Your task to perform on an android device: turn off translation in the chrome app Image 0: 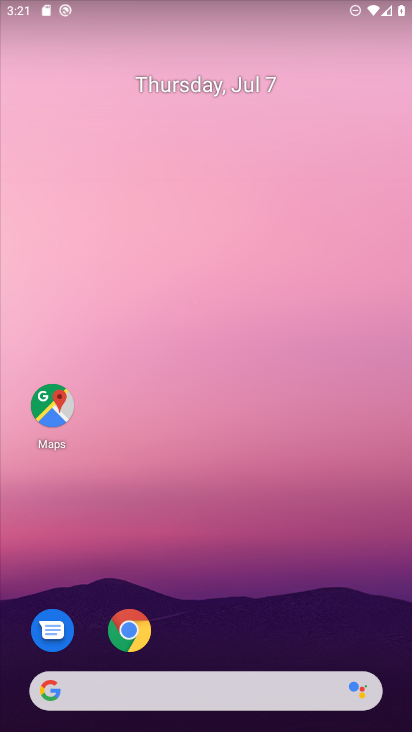
Step 0: drag from (317, 623) to (370, 222)
Your task to perform on an android device: turn off translation in the chrome app Image 1: 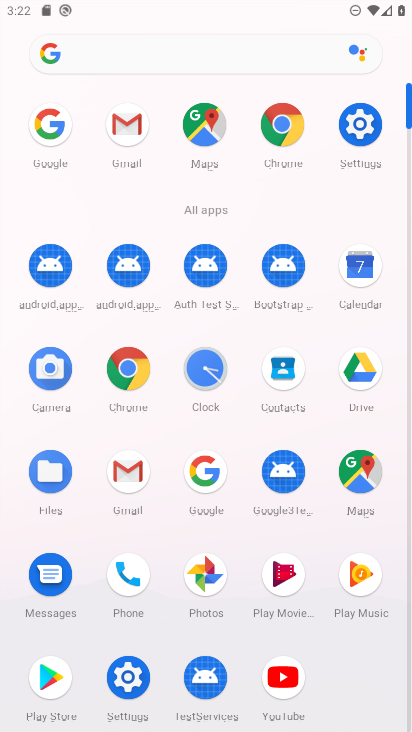
Step 1: click (130, 370)
Your task to perform on an android device: turn off translation in the chrome app Image 2: 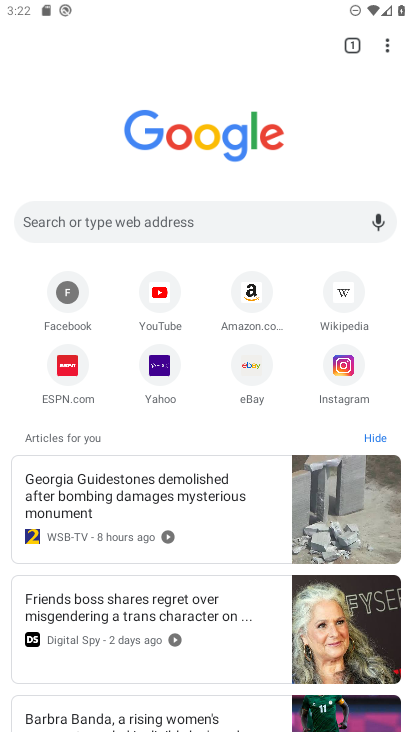
Step 2: click (386, 48)
Your task to perform on an android device: turn off translation in the chrome app Image 3: 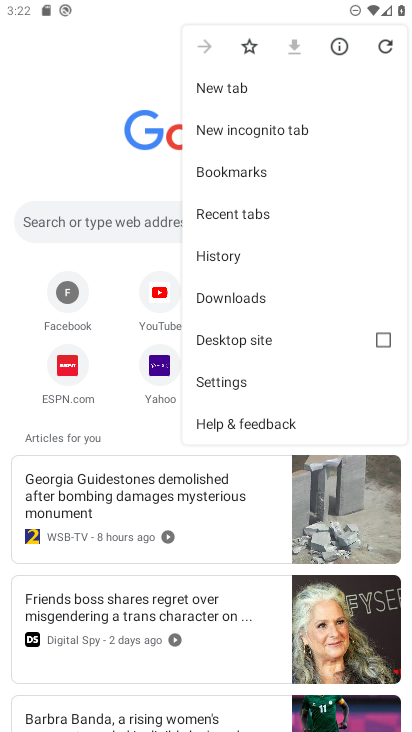
Step 3: click (264, 377)
Your task to perform on an android device: turn off translation in the chrome app Image 4: 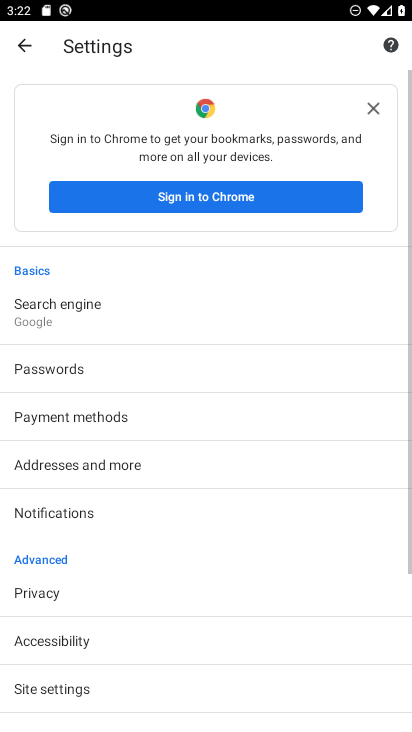
Step 4: drag from (284, 450) to (304, 363)
Your task to perform on an android device: turn off translation in the chrome app Image 5: 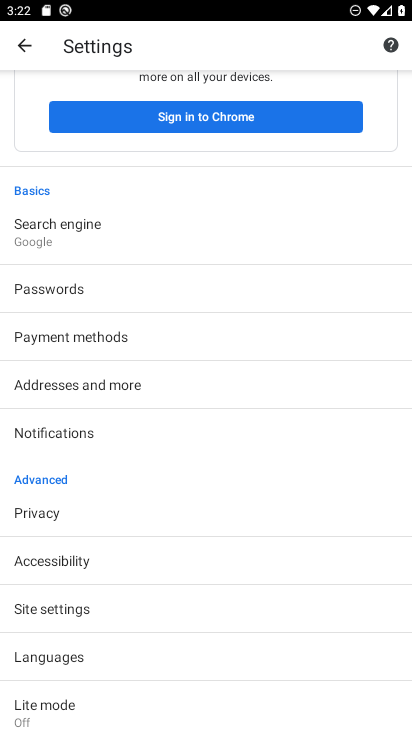
Step 5: drag from (324, 482) to (342, 413)
Your task to perform on an android device: turn off translation in the chrome app Image 6: 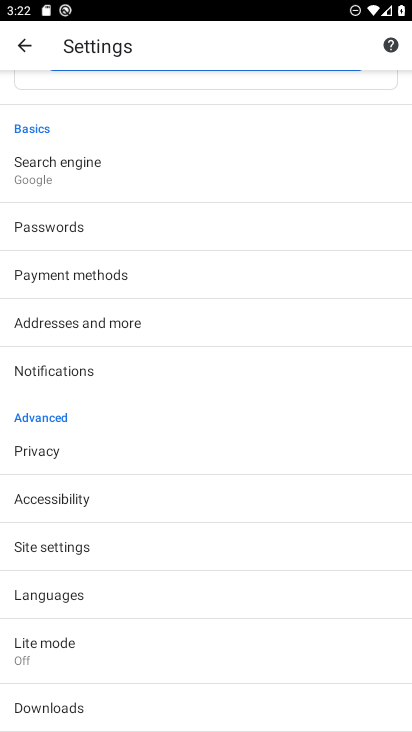
Step 6: drag from (324, 508) to (319, 417)
Your task to perform on an android device: turn off translation in the chrome app Image 7: 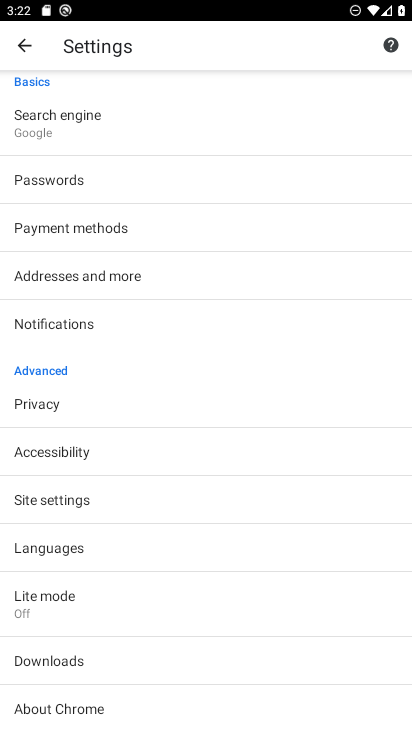
Step 7: click (90, 544)
Your task to perform on an android device: turn off translation in the chrome app Image 8: 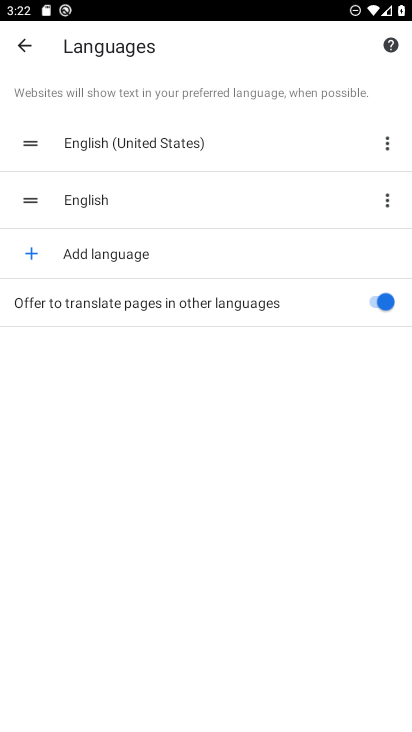
Step 8: click (388, 301)
Your task to perform on an android device: turn off translation in the chrome app Image 9: 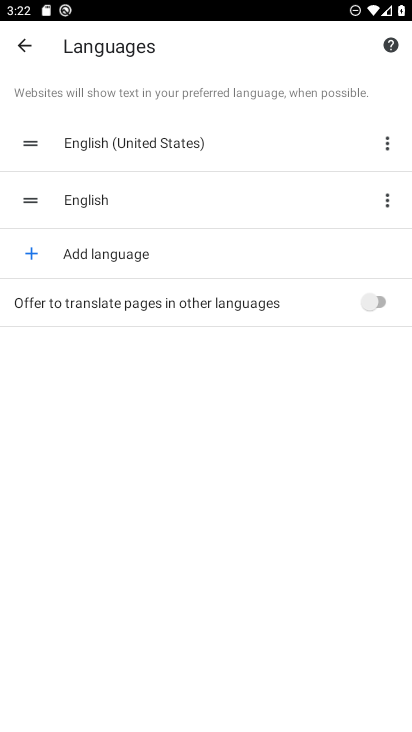
Step 9: task complete